Your task to perform on an android device: open a new tab in the chrome app Image 0: 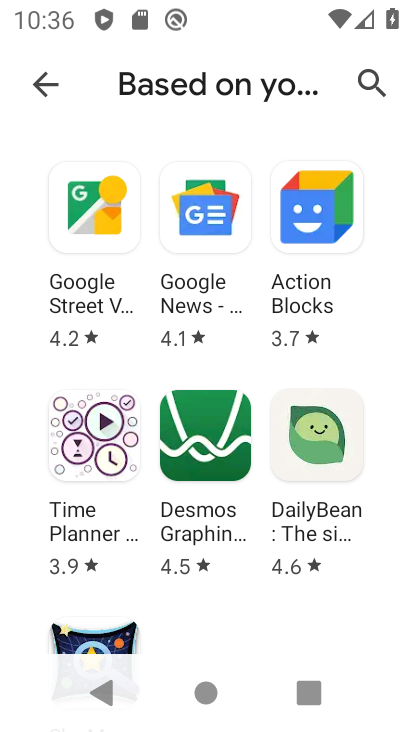
Step 0: press home button
Your task to perform on an android device: open a new tab in the chrome app Image 1: 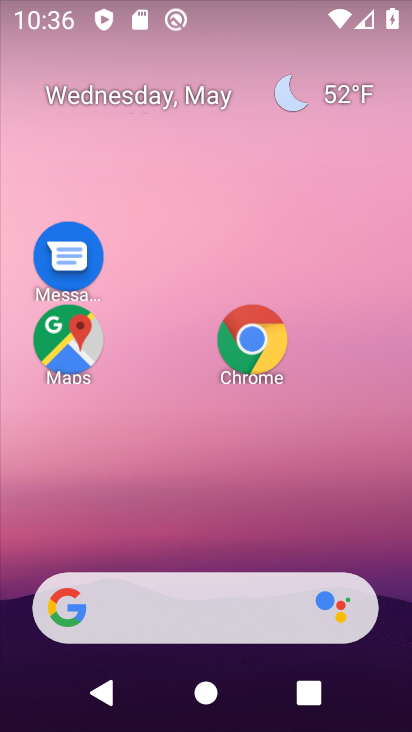
Step 1: click (257, 339)
Your task to perform on an android device: open a new tab in the chrome app Image 2: 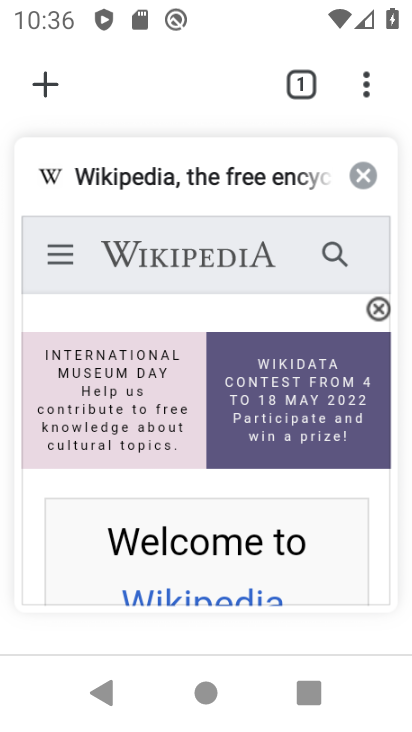
Step 2: click (39, 84)
Your task to perform on an android device: open a new tab in the chrome app Image 3: 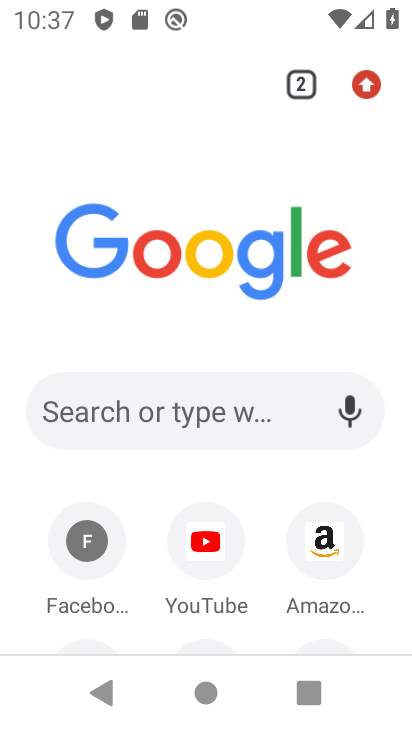
Step 3: task complete